Your task to perform on an android device: See recent photos Image 0: 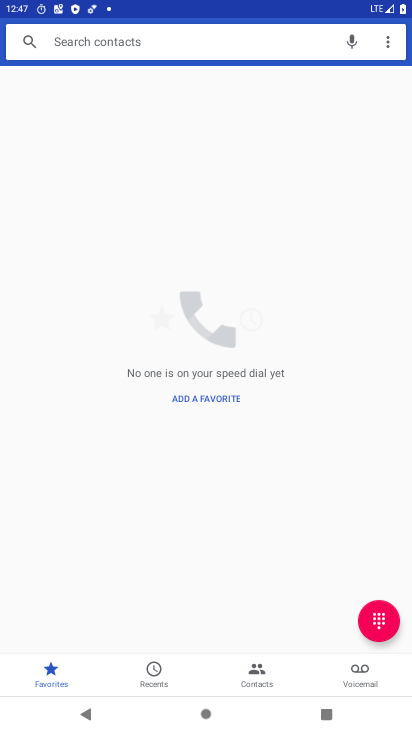
Step 0: drag from (367, 638) to (280, 88)
Your task to perform on an android device: See recent photos Image 1: 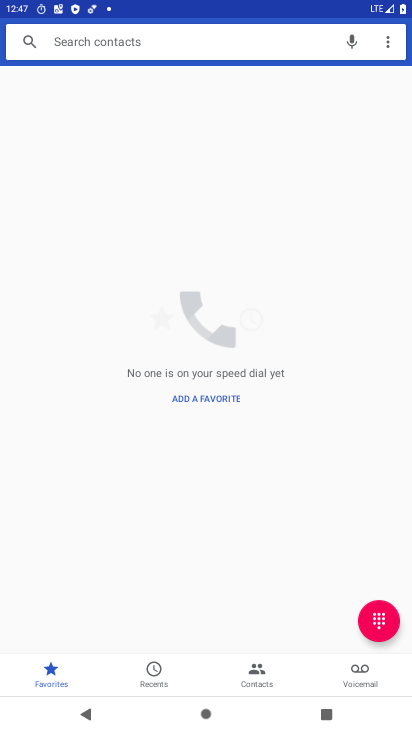
Step 1: press home button
Your task to perform on an android device: See recent photos Image 2: 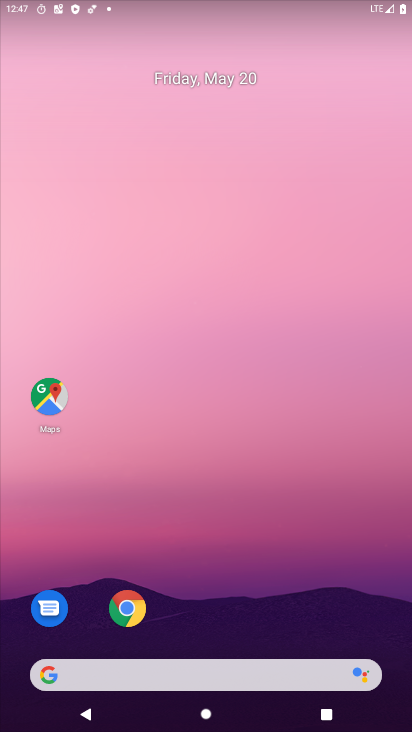
Step 2: drag from (337, 627) to (272, 125)
Your task to perform on an android device: See recent photos Image 3: 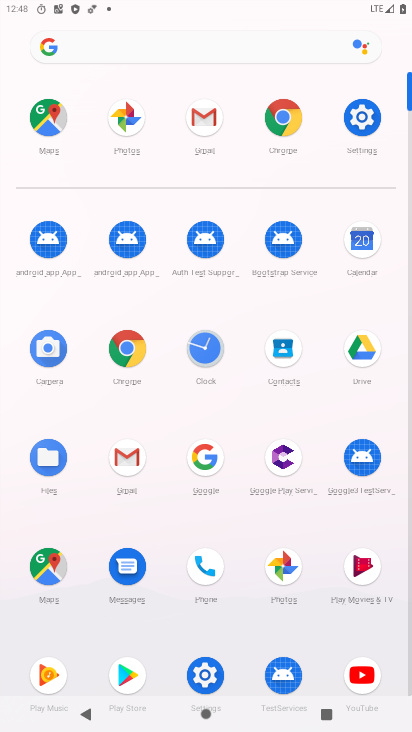
Step 3: click (283, 571)
Your task to perform on an android device: See recent photos Image 4: 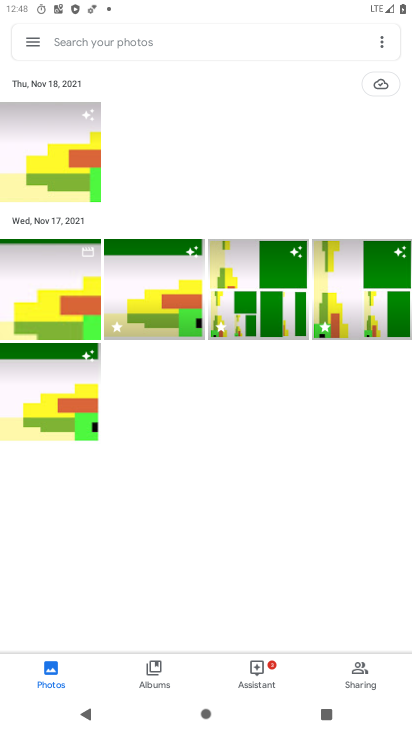
Step 4: task complete